Your task to perform on an android device: Search for flights from Mexico city to Sydney Image 0: 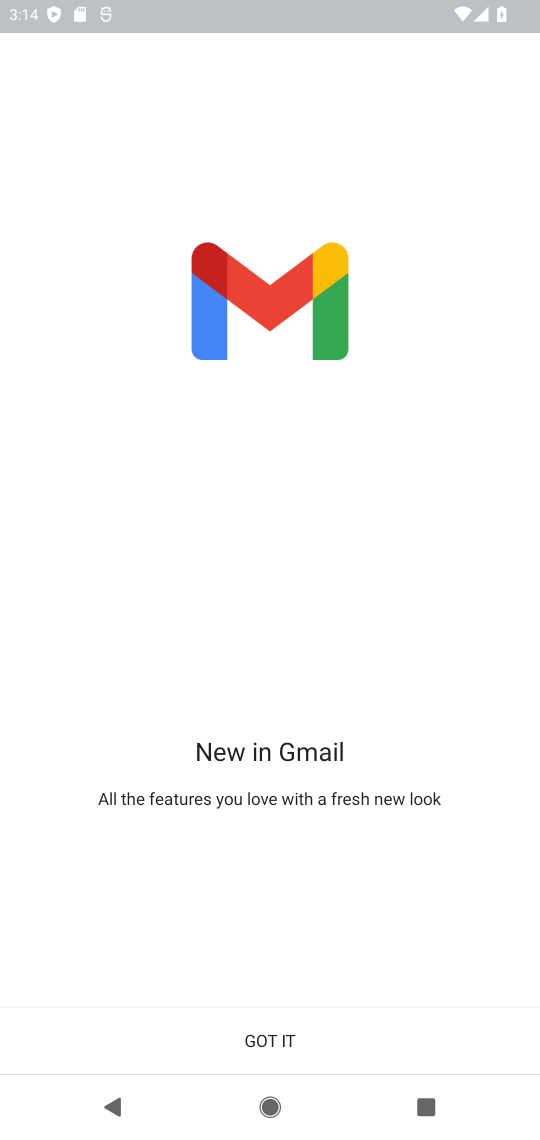
Step 0: press home button
Your task to perform on an android device: Search for flights from Mexico city to Sydney Image 1: 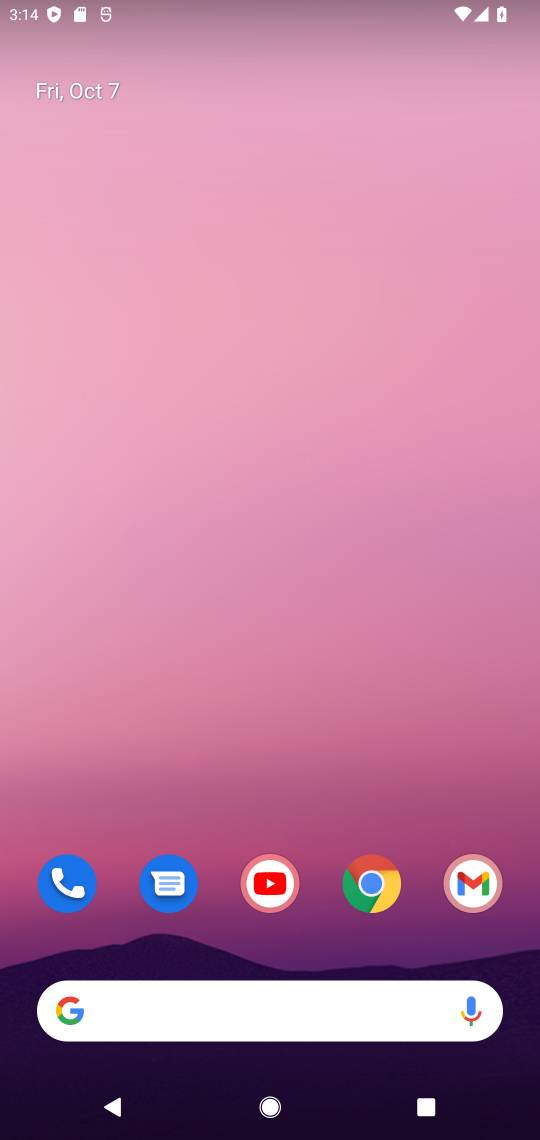
Step 1: click (380, 881)
Your task to perform on an android device: Search for flights from Mexico city to Sydney Image 2: 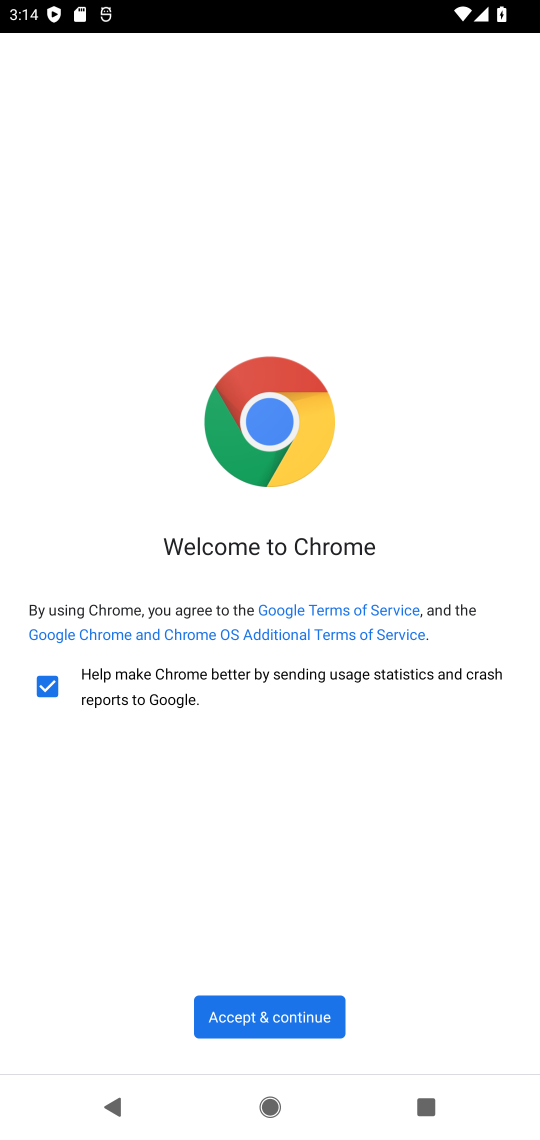
Step 2: click (272, 1018)
Your task to perform on an android device: Search for flights from Mexico city to Sydney Image 3: 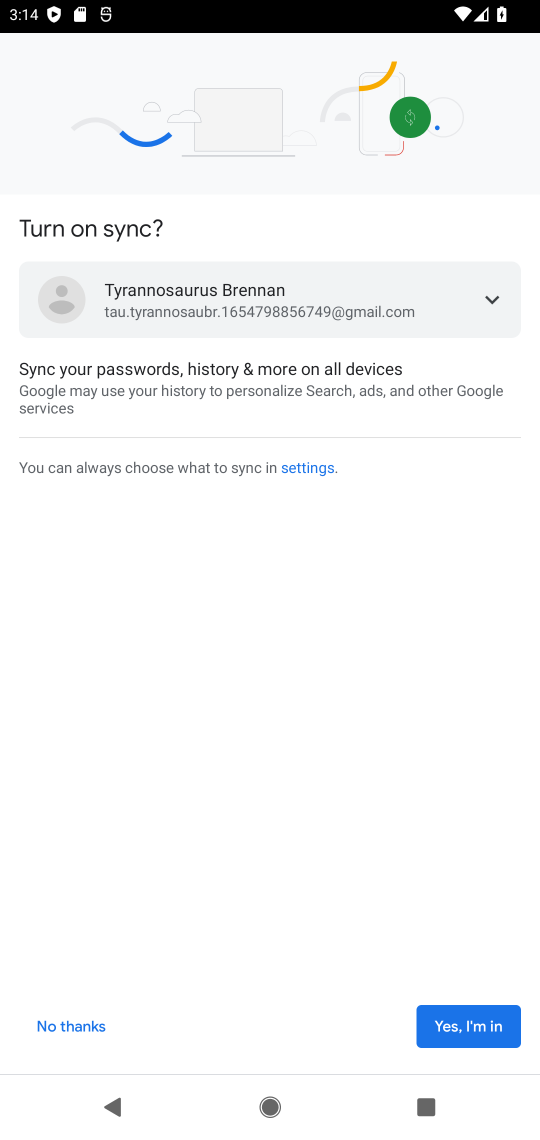
Step 3: click (473, 1025)
Your task to perform on an android device: Search for flights from Mexico city to Sydney Image 4: 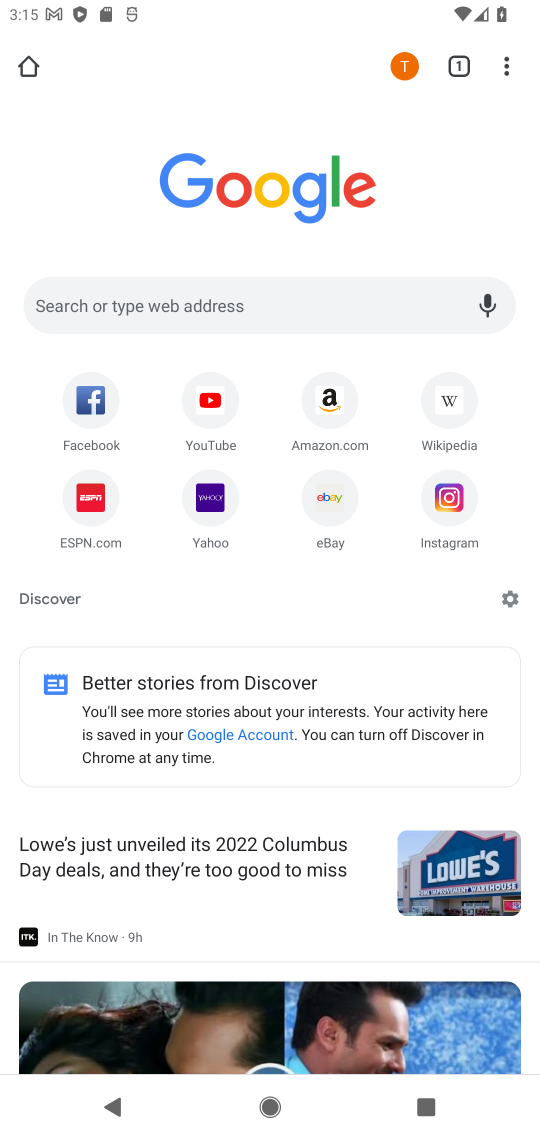
Step 4: type "flights from Mexico city to Sydney"
Your task to perform on an android device: Search for flights from Mexico city to Sydney Image 5: 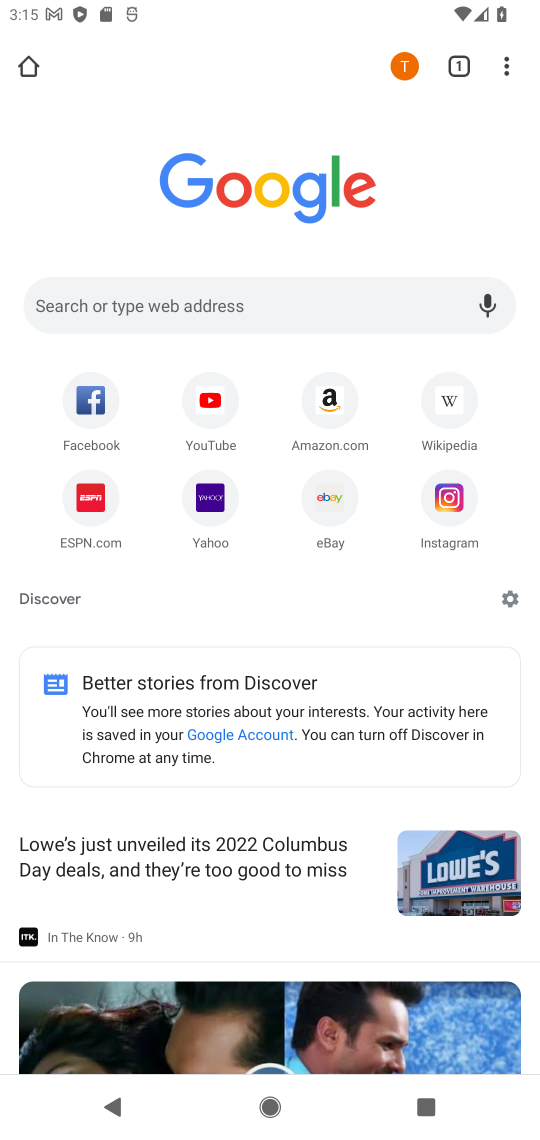
Step 5: click (352, 273)
Your task to perform on an android device: Search for flights from Mexico city to Sydney Image 6: 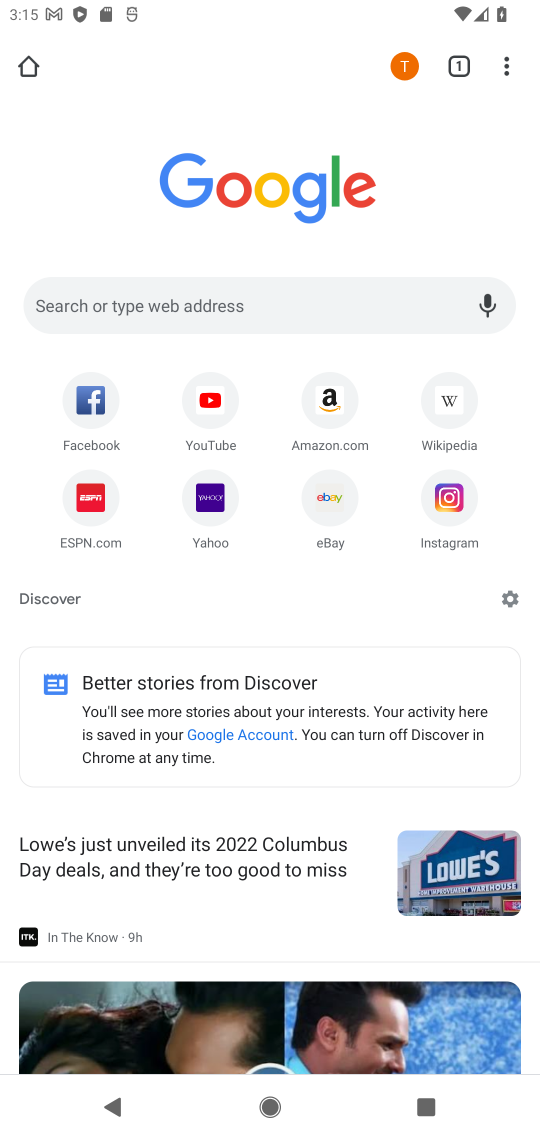
Step 6: click (263, 287)
Your task to perform on an android device: Search for flights from Mexico city to Sydney Image 7: 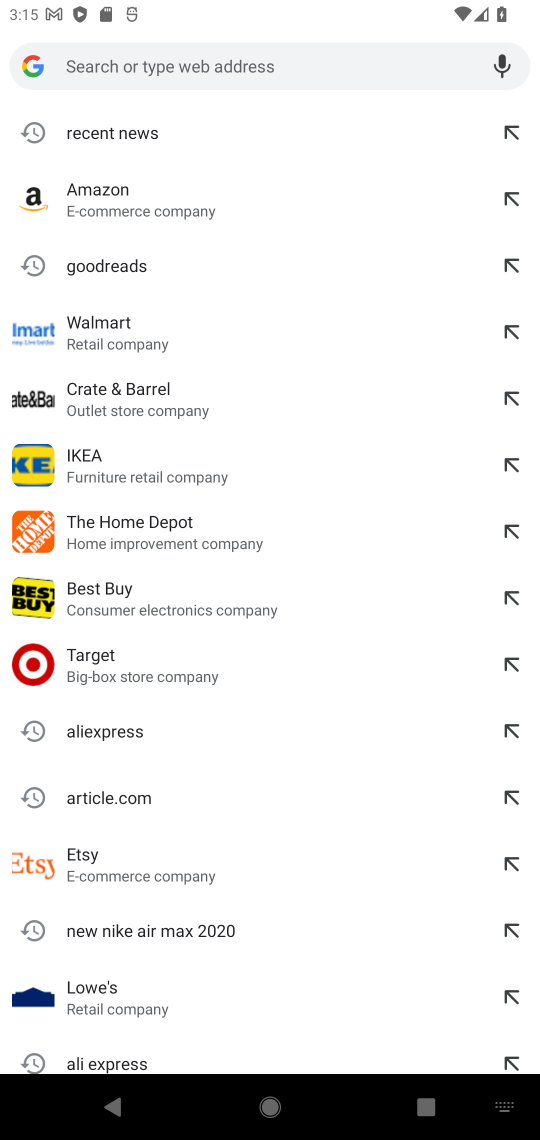
Step 7: type "flights from Mexico city to Sydney"
Your task to perform on an android device: Search for flights from Mexico city to Sydney Image 8: 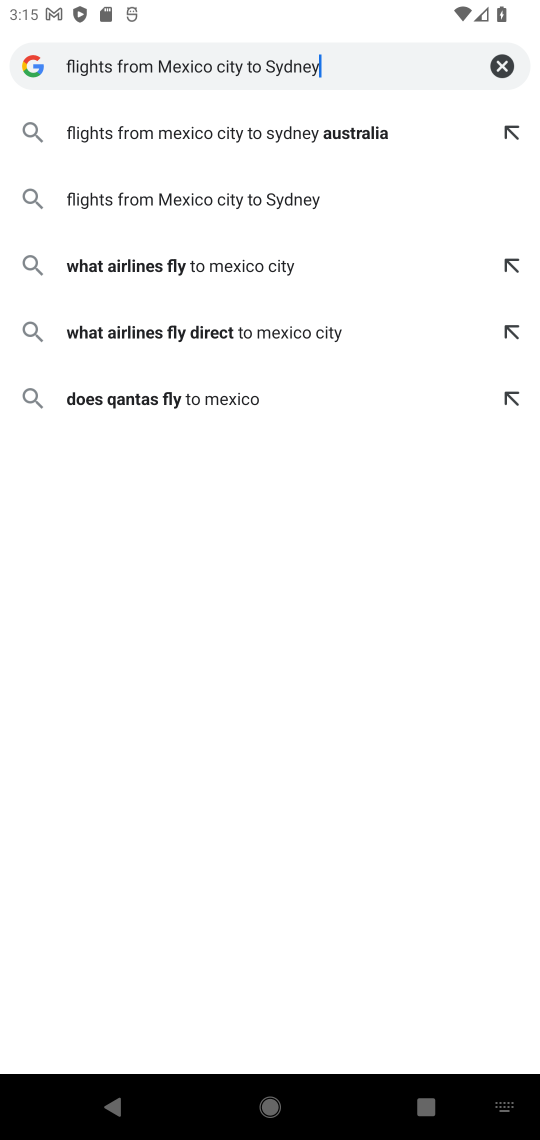
Step 8: click (228, 206)
Your task to perform on an android device: Search for flights from Mexico city to Sydney Image 9: 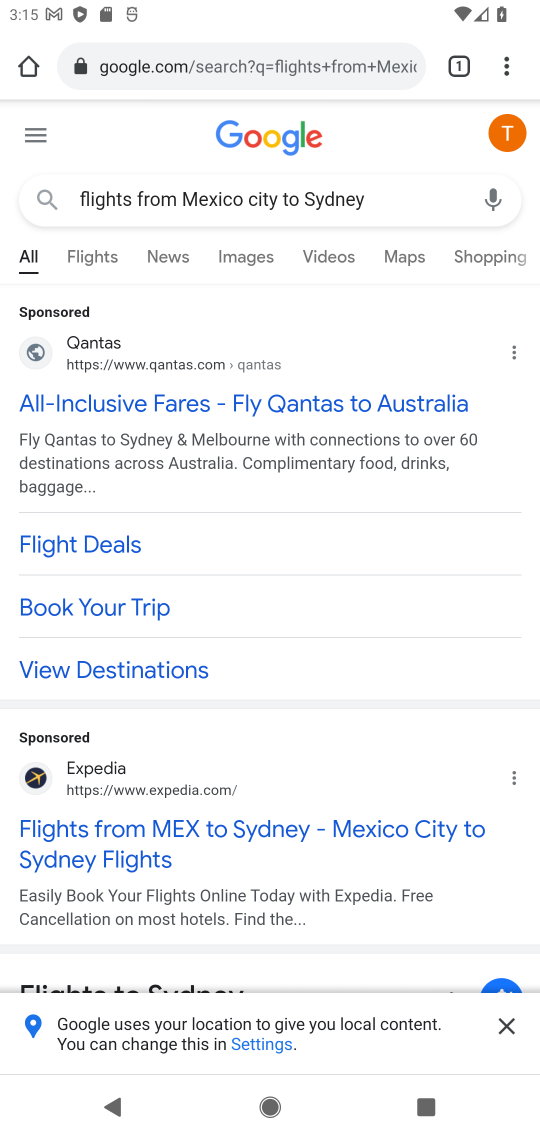
Step 9: task complete